Your task to perform on an android device: Open calendar and show me the first week of next month Image 0: 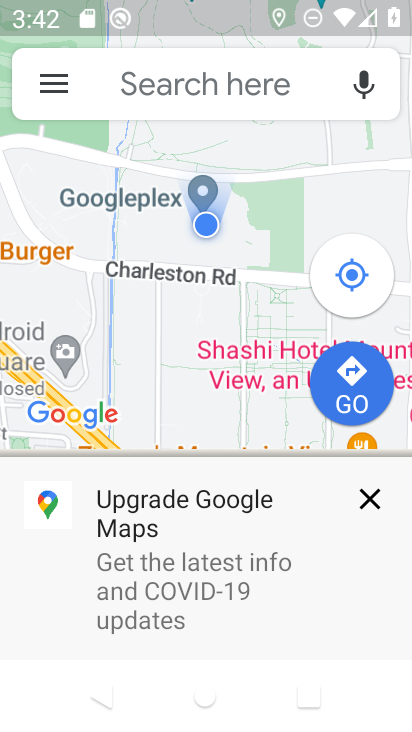
Step 0: press back button
Your task to perform on an android device: Open calendar and show me the first week of next month Image 1: 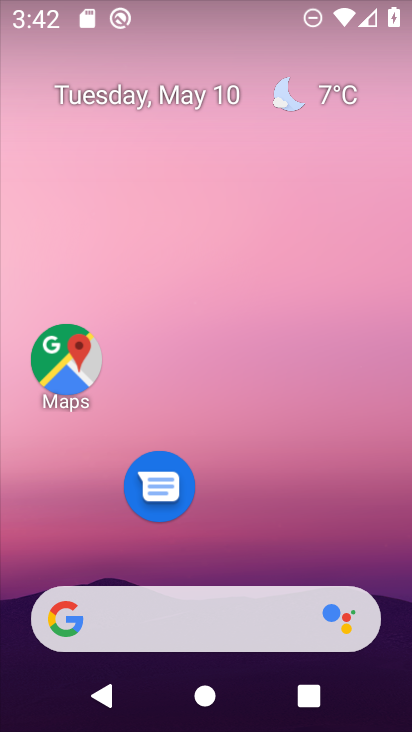
Step 1: drag from (247, 449) to (189, 38)
Your task to perform on an android device: Open calendar and show me the first week of next month Image 2: 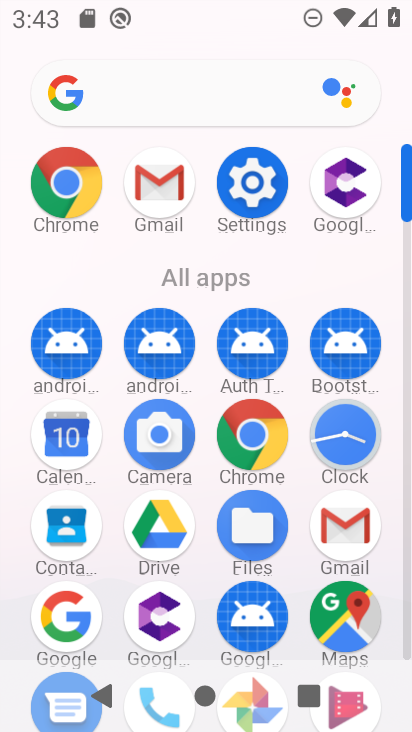
Step 2: click (65, 429)
Your task to perform on an android device: Open calendar and show me the first week of next month Image 3: 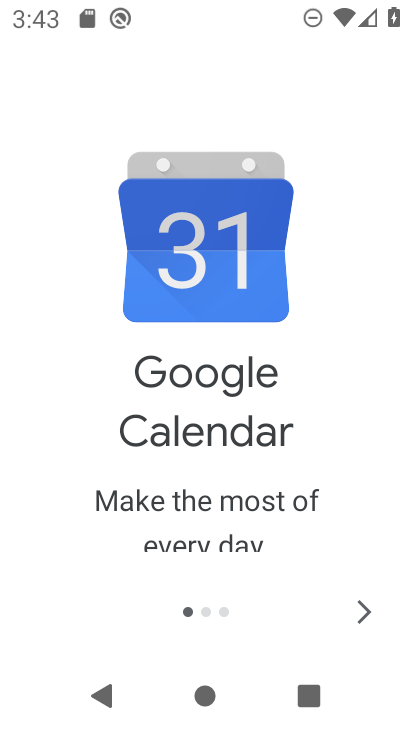
Step 3: click (363, 611)
Your task to perform on an android device: Open calendar and show me the first week of next month Image 4: 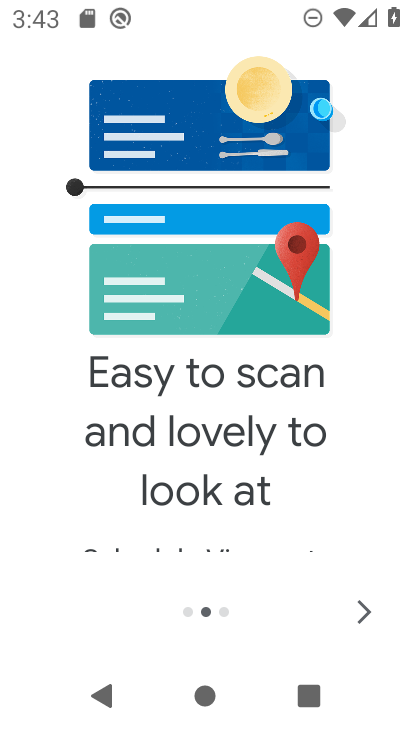
Step 4: click (363, 611)
Your task to perform on an android device: Open calendar and show me the first week of next month Image 5: 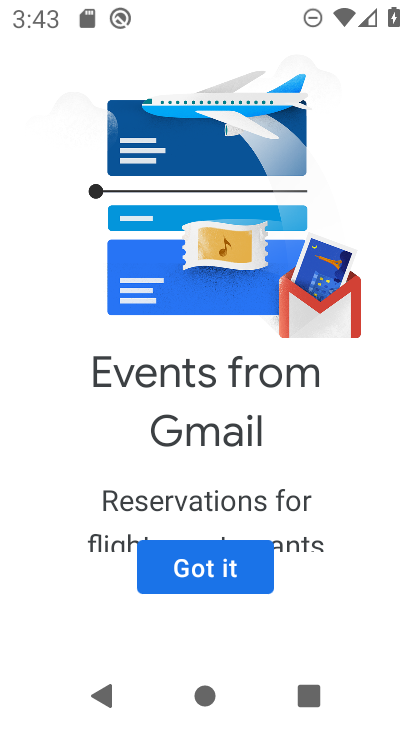
Step 5: click (239, 575)
Your task to perform on an android device: Open calendar and show me the first week of next month Image 6: 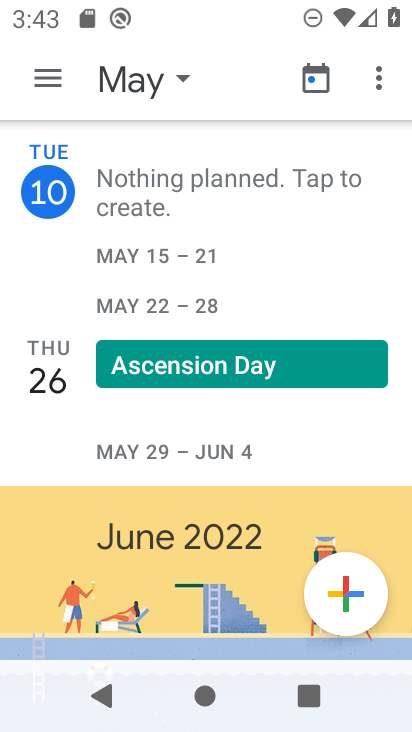
Step 6: click (119, 85)
Your task to perform on an android device: Open calendar and show me the first week of next month Image 7: 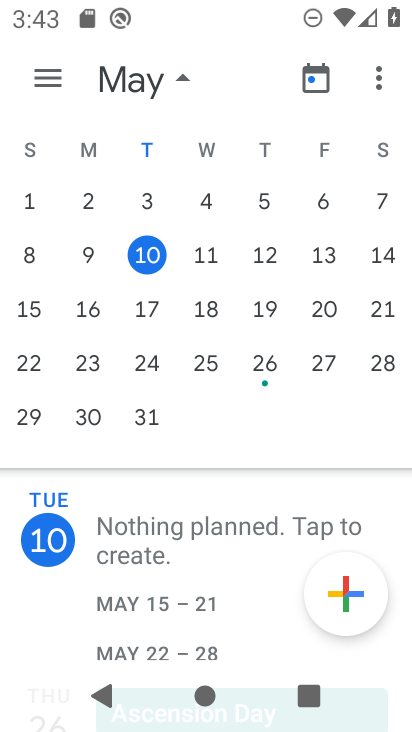
Step 7: drag from (379, 298) to (7, 306)
Your task to perform on an android device: Open calendar and show me the first week of next month Image 8: 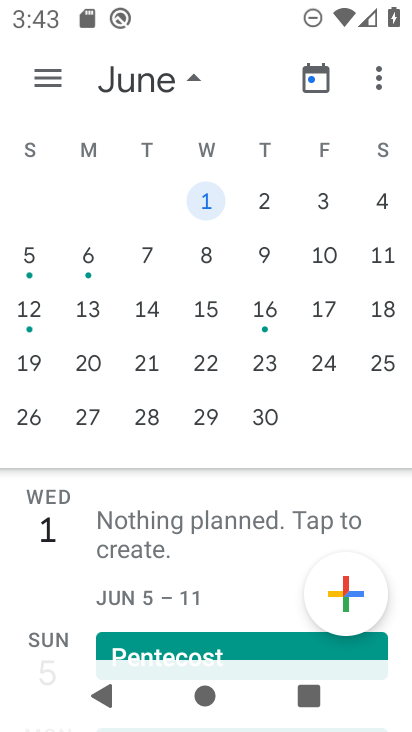
Step 8: click (206, 195)
Your task to perform on an android device: Open calendar and show me the first week of next month Image 9: 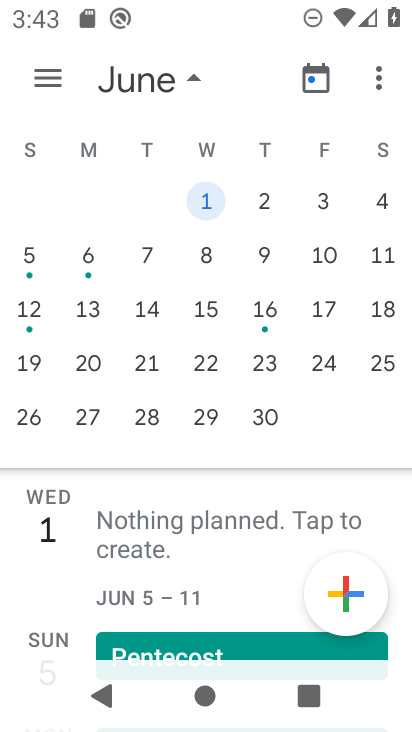
Step 9: click (48, 71)
Your task to perform on an android device: Open calendar and show me the first week of next month Image 10: 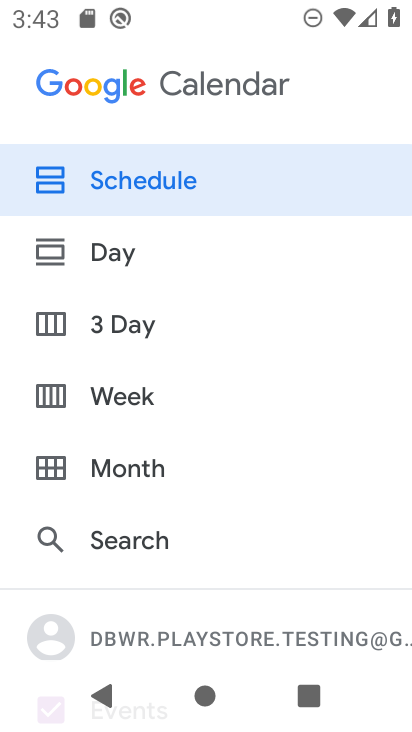
Step 10: click (122, 382)
Your task to perform on an android device: Open calendar and show me the first week of next month Image 11: 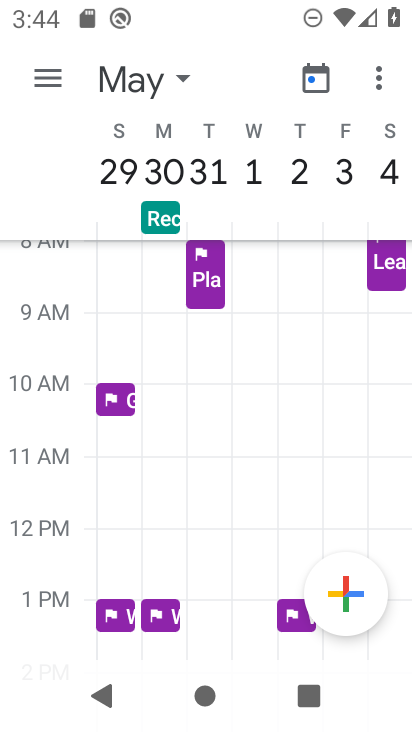
Step 11: task complete